Your task to perform on an android device: open app "The Home Depot" (install if not already installed) Image 0: 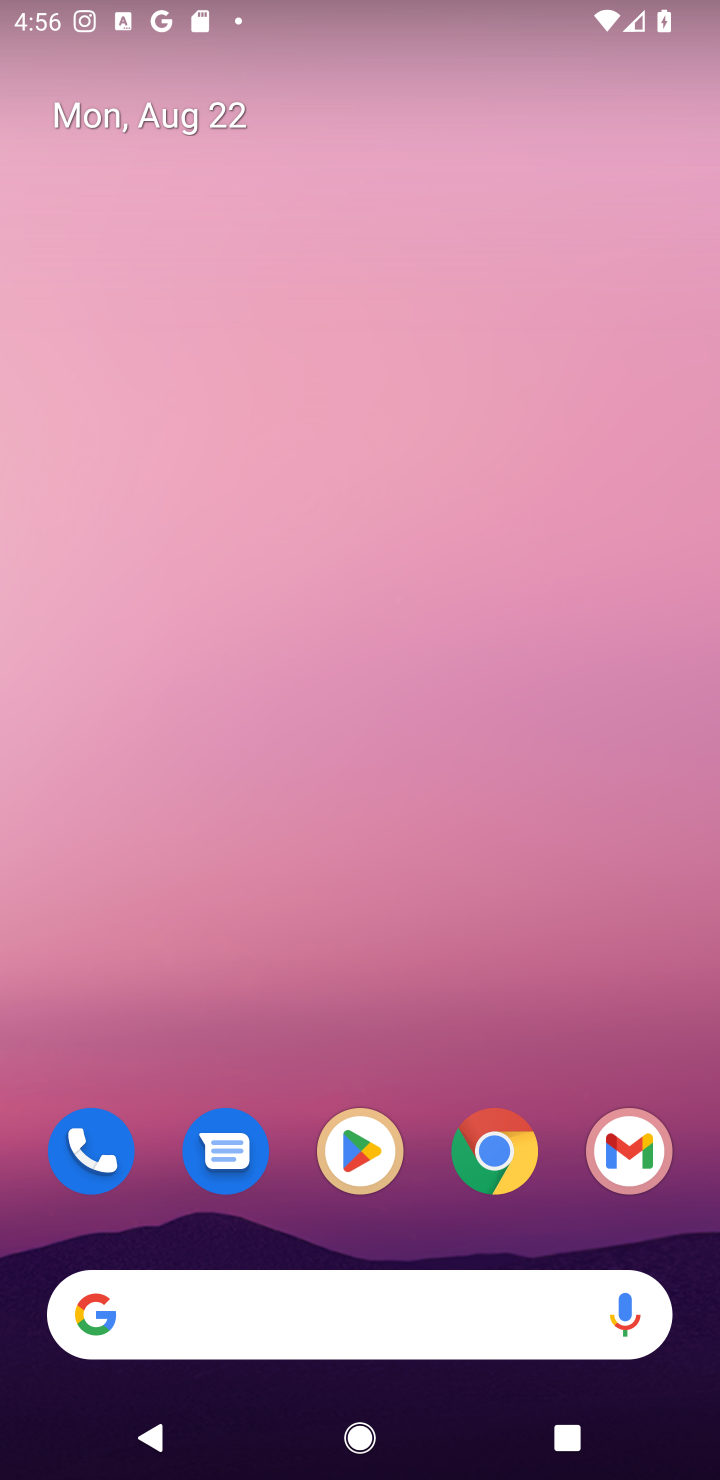
Step 0: click (341, 1164)
Your task to perform on an android device: open app "The Home Depot" (install if not already installed) Image 1: 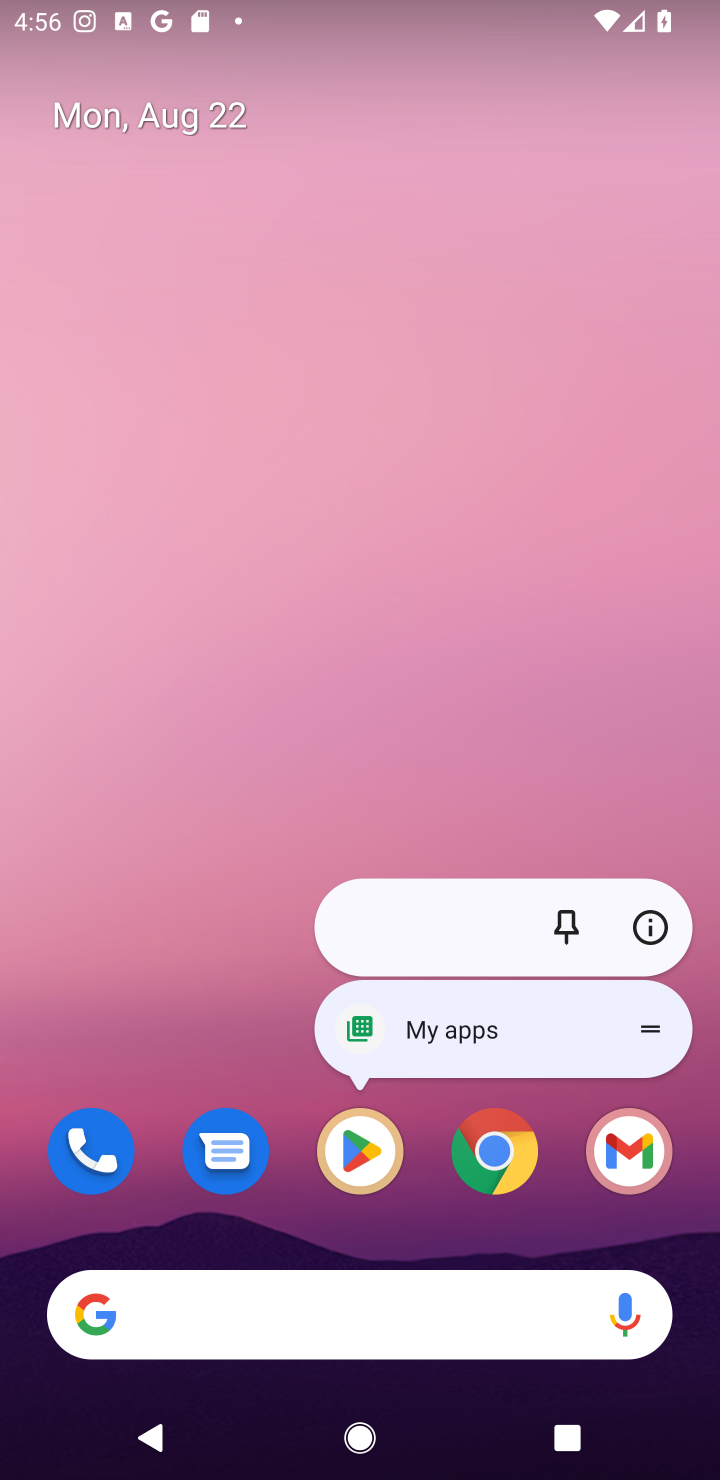
Step 1: click (368, 1136)
Your task to perform on an android device: open app "The Home Depot" (install if not already installed) Image 2: 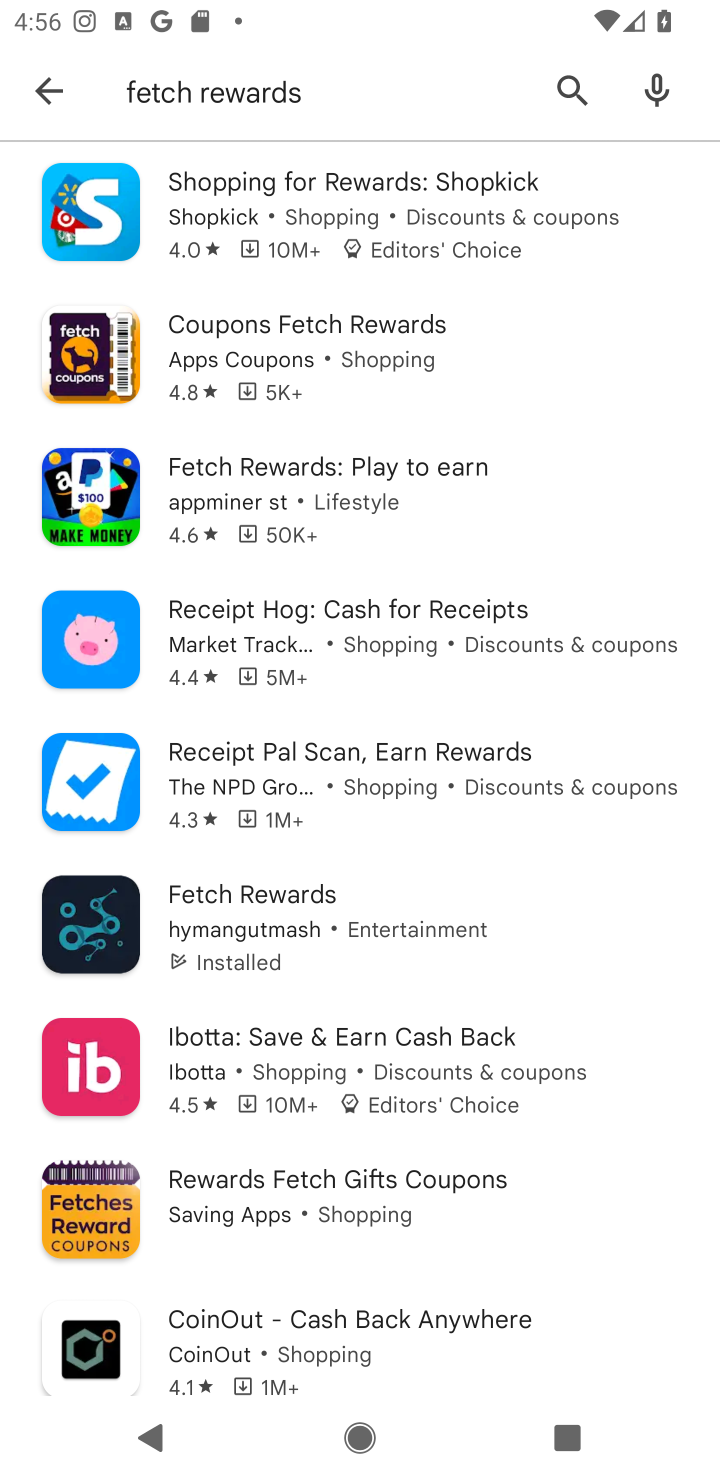
Step 2: click (565, 91)
Your task to perform on an android device: open app "The Home Depot" (install if not already installed) Image 3: 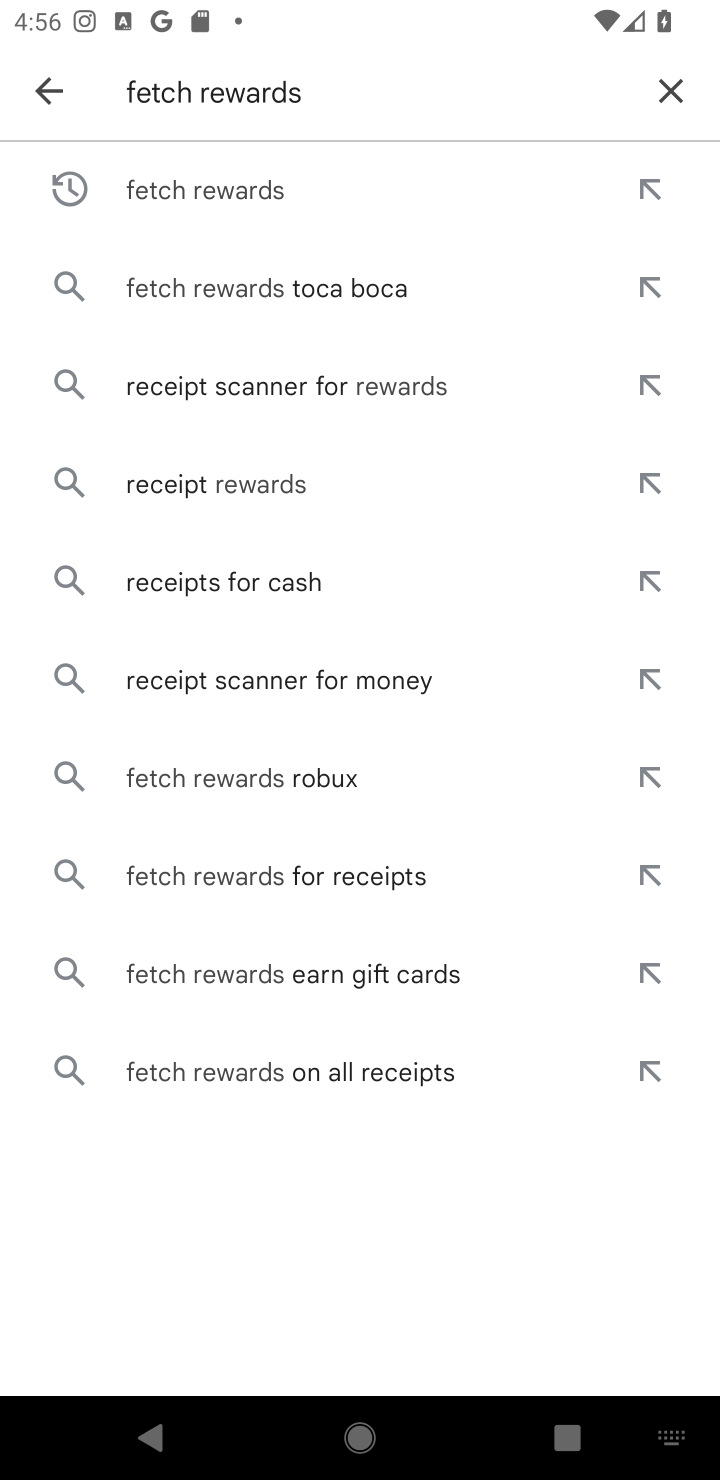
Step 3: click (671, 88)
Your task to perform on an android device: open app "The Home Depot" (install if not already installed) Image 4: 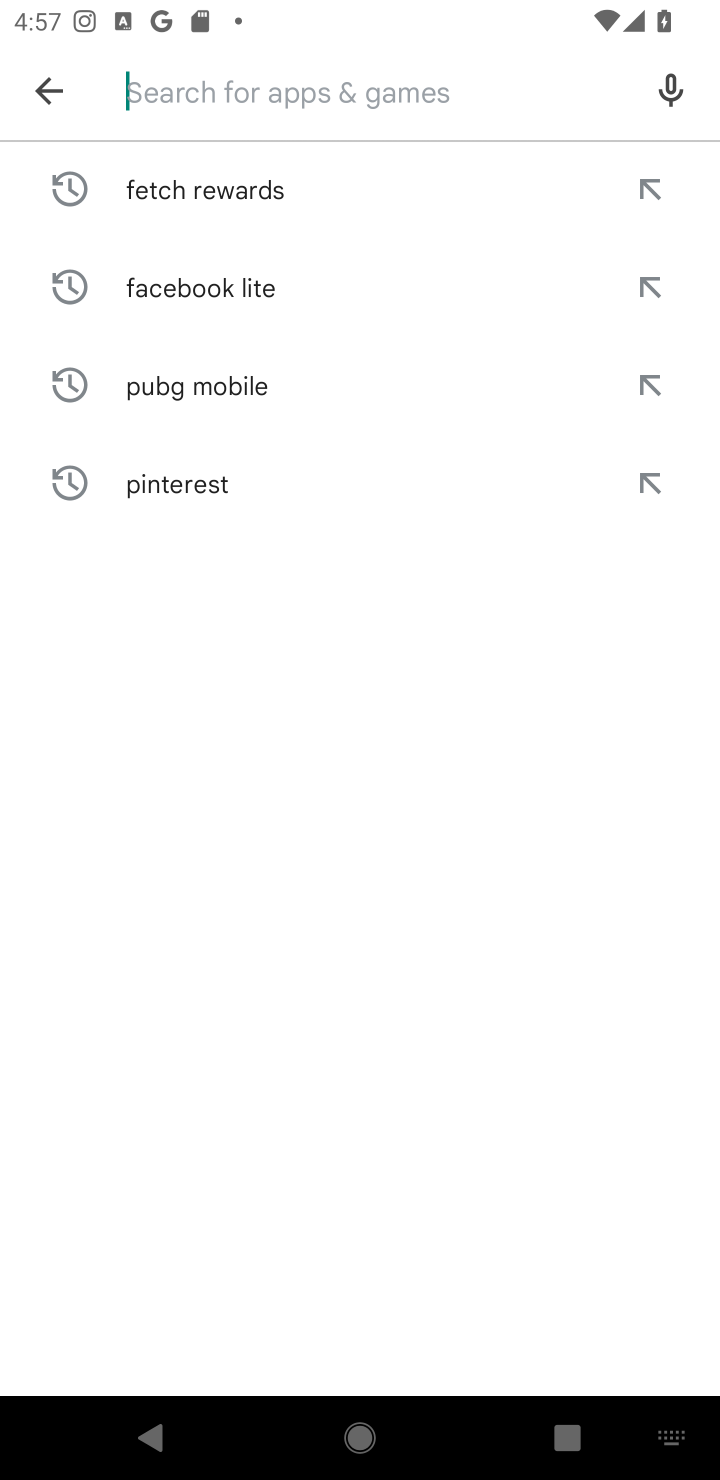
Step 4: type "The Home Depot"
Your task to perform on an android device: open app "The Home Depot" (install if not already installed) Image 5: 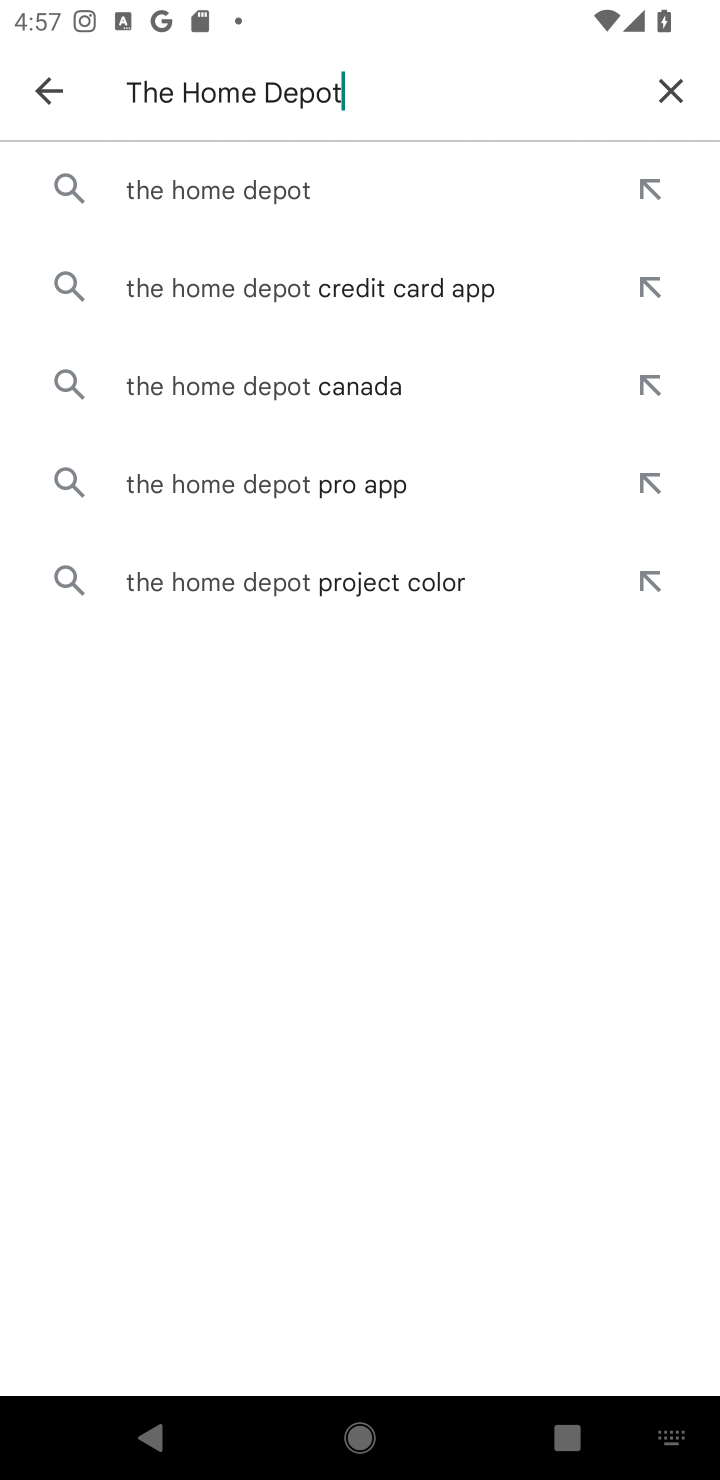
Step 5: click (267, 188)
Your task to perform on an android device: open app "The Home Depot" (install if not already installed) Image 6: 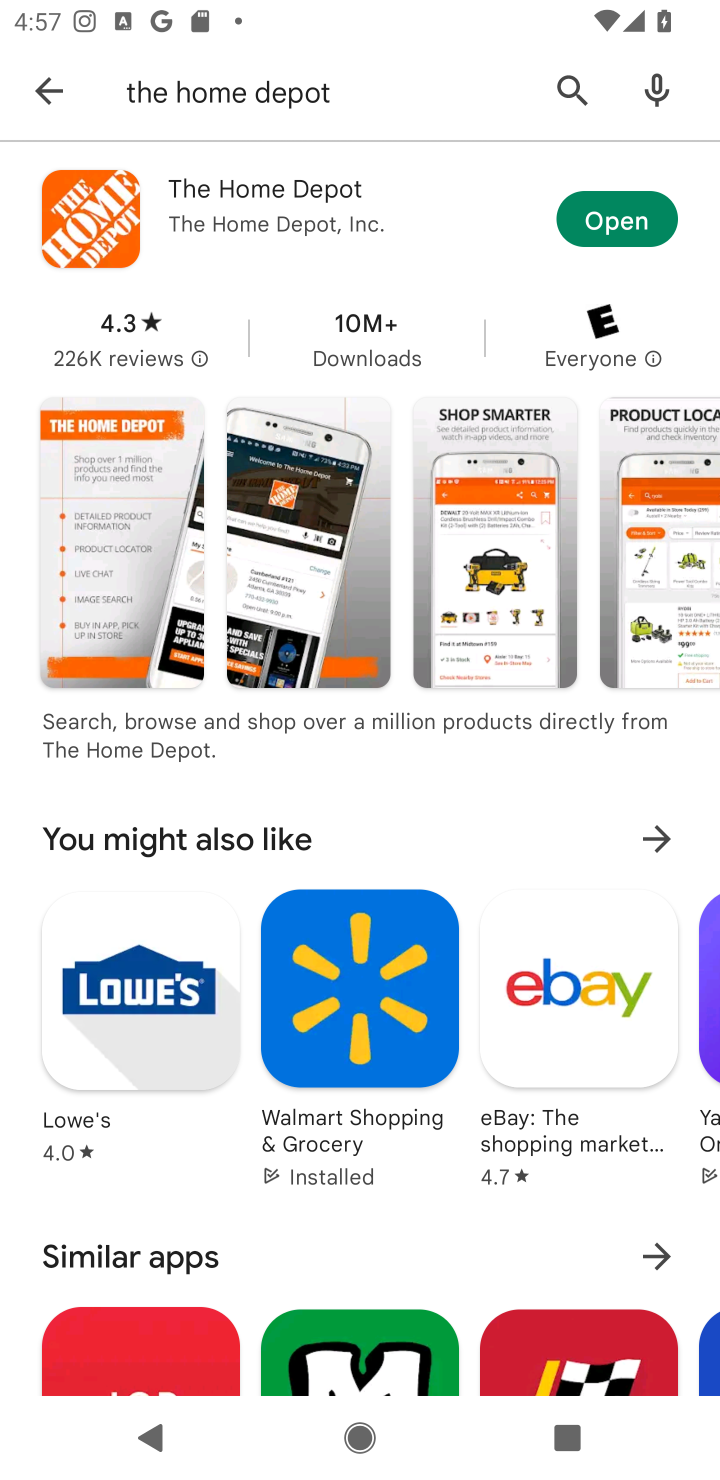
Step 6: click (604, 225)
Your task to perform on an android device: open app "The Home Depot" (install if not already installed) Image 7: 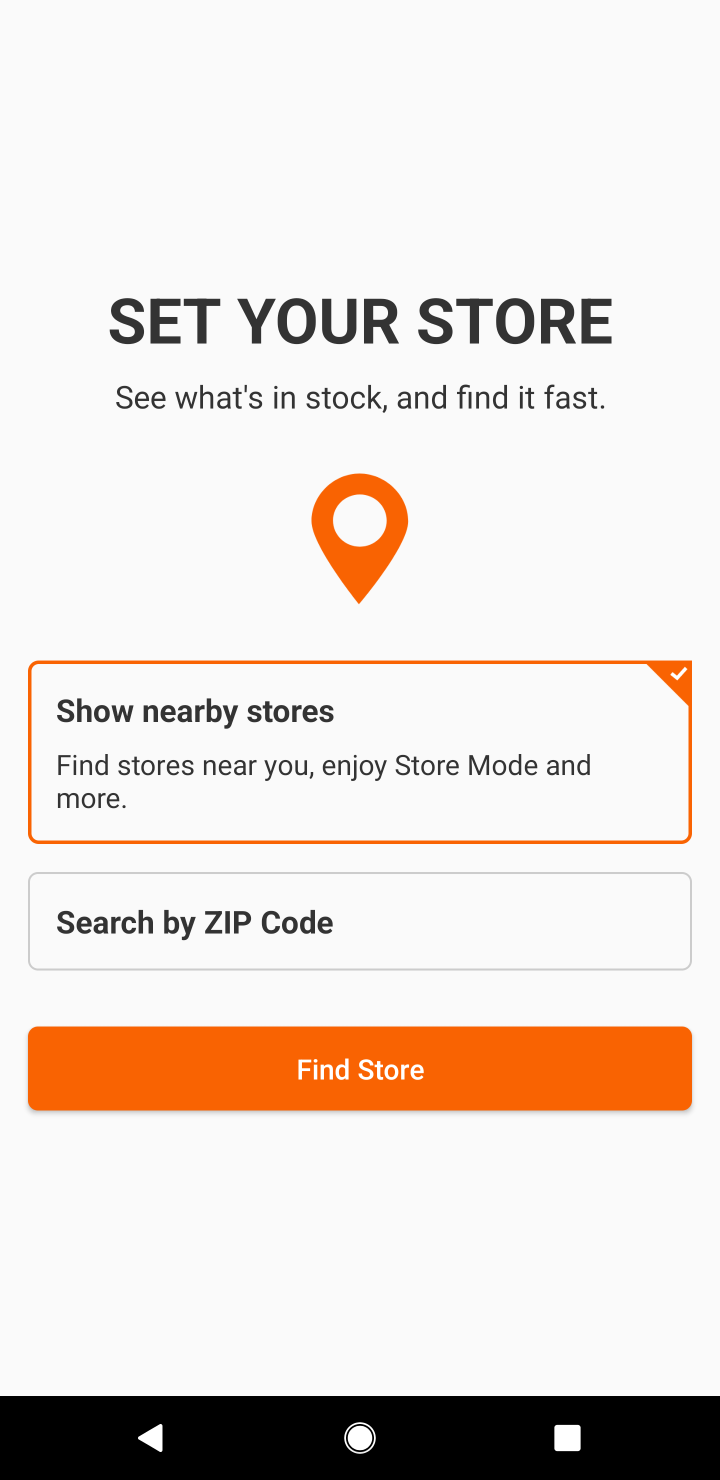
Step 7: task complete